Your task to perform on an android device: read, delete, or share a saved page in the chrome app Image 0: 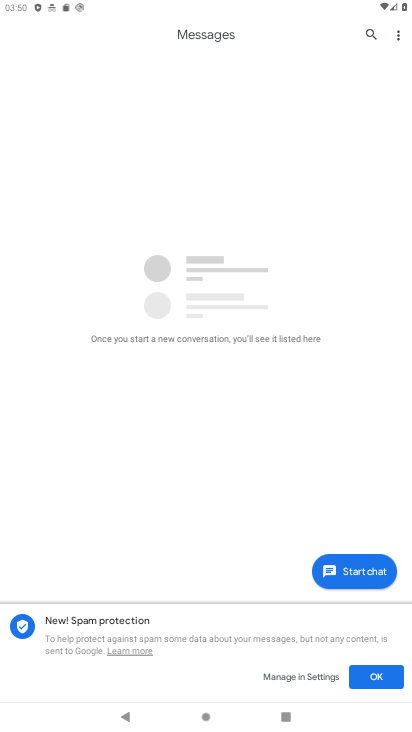
Step 0: press home button
Your task to perform on an android device: read, delete, or share a saved page in the chrome app Image 1: 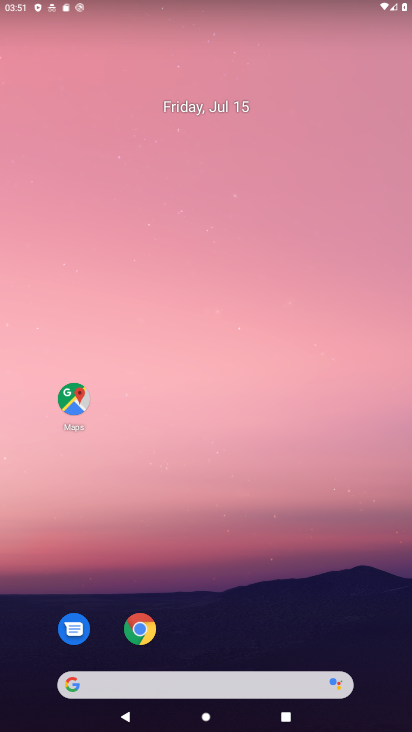
Step 1: drag from (258, 629) to (253, 81)
Your task to perform on an android device: read, delete, or share a saved page in the chrome app Image 2: 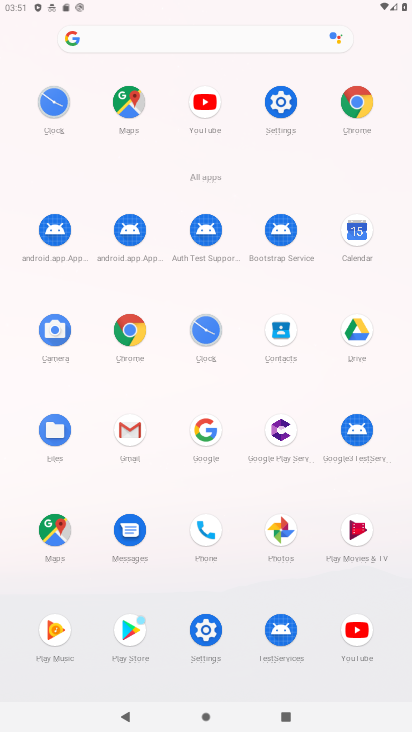
Step 2: click (120, 330)
Your task to perform on an android device: read, delete, or share a saved page in the chrome app Image 3: 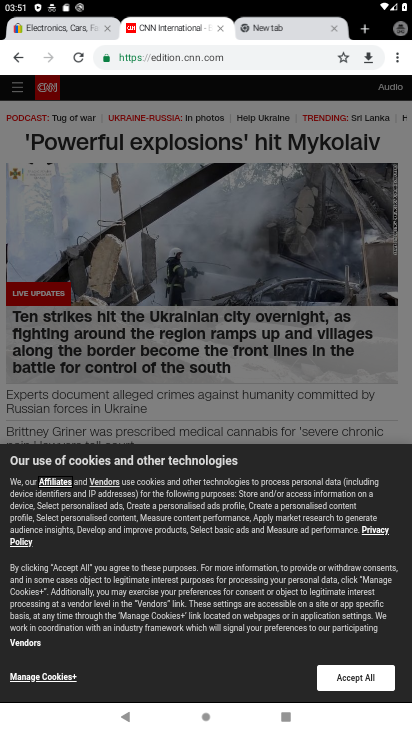
Step 3: drag from (256, 528) to (258, 312)
Your task to perform on an android device: read, delete, or share a saved page in the chrome app Image 4: 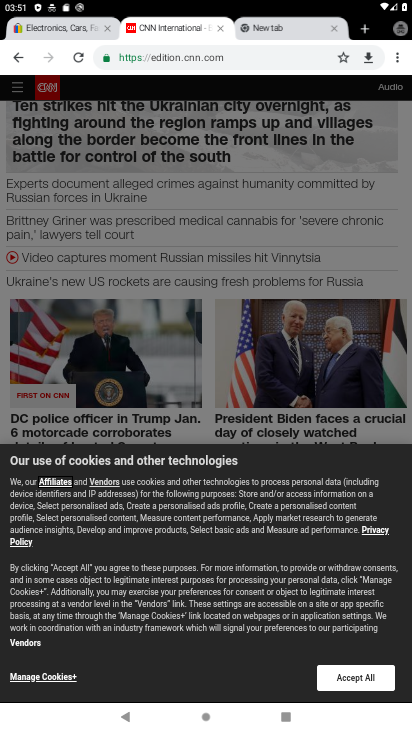
Step 4: click (394, 56)
Your task to perform on an android device: read, delete, or share a saved page in the chrome app Image 5: 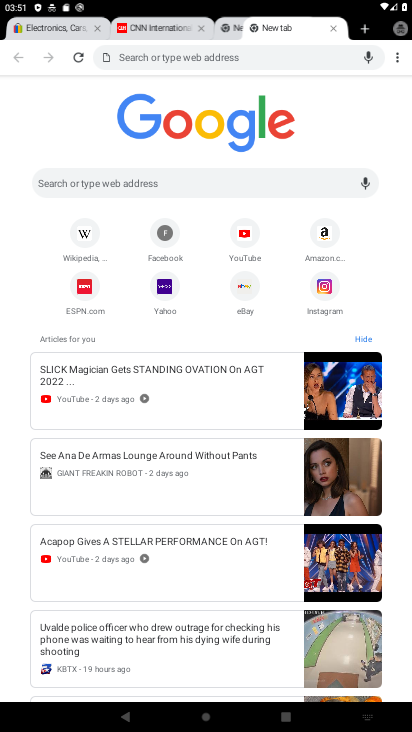
Step 5: click (396, 58)
Your task to perform on an android device: read, delete, or share a saved page in the chrome app Image 6: 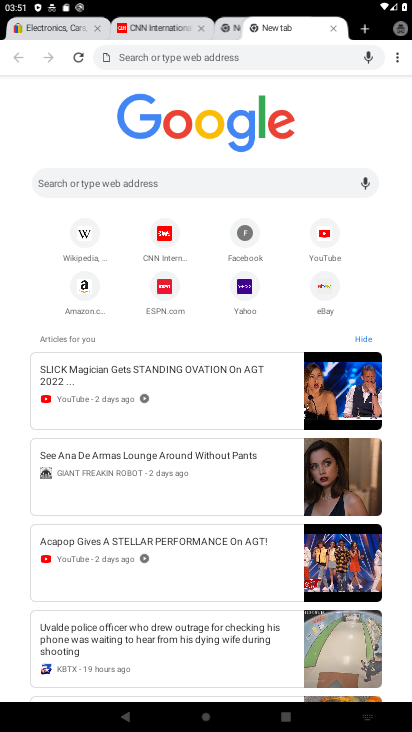
Step 6: click (238, 25)
Your task to perform on an android device: read, delete, or share a saved page in the chrome app Image 7: 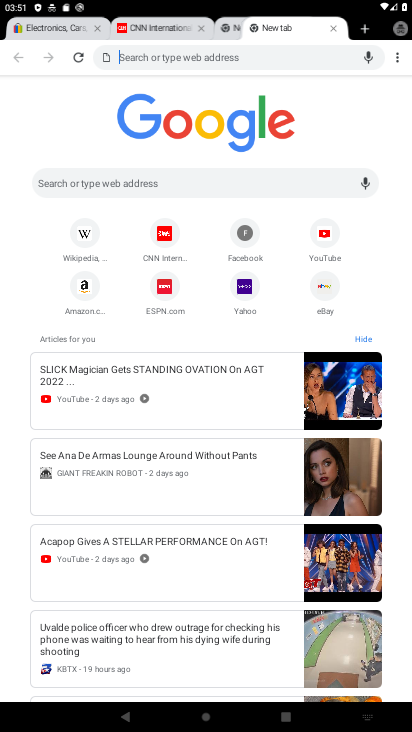
Step 7: click (176, 25)
Your task to perform on an android device: read, delete, or share a saved page in the chrome app Image 8: 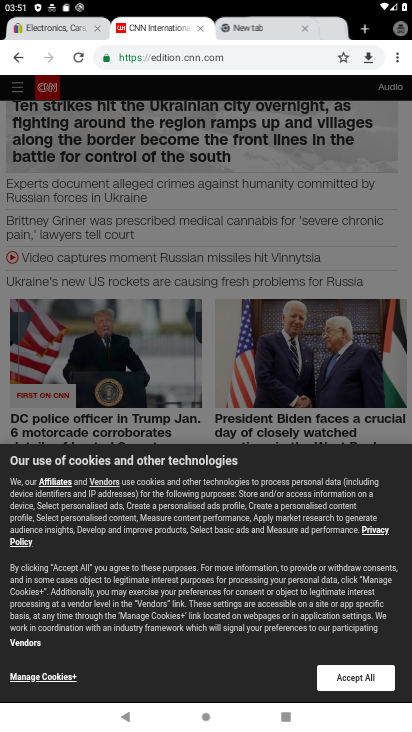
Step 8: click (342, 59)
Your task to perform on an android device: read, delete, or share a saved page in the chrome app Image 9: 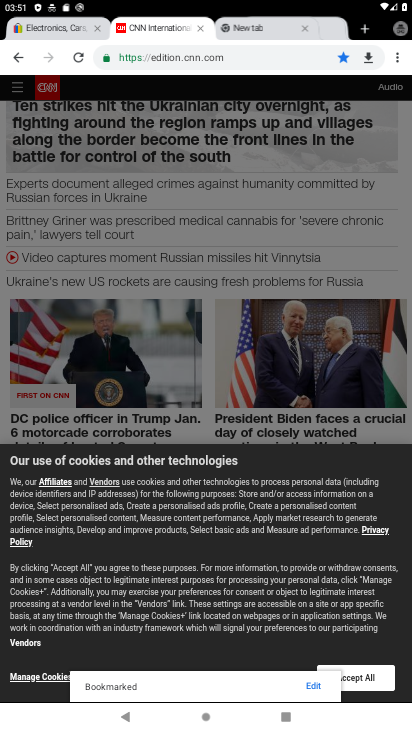
Step 9: click (342, 59)
Your task to perform on an android device: read, delete, or share a saved page in the chrome app Image 10: 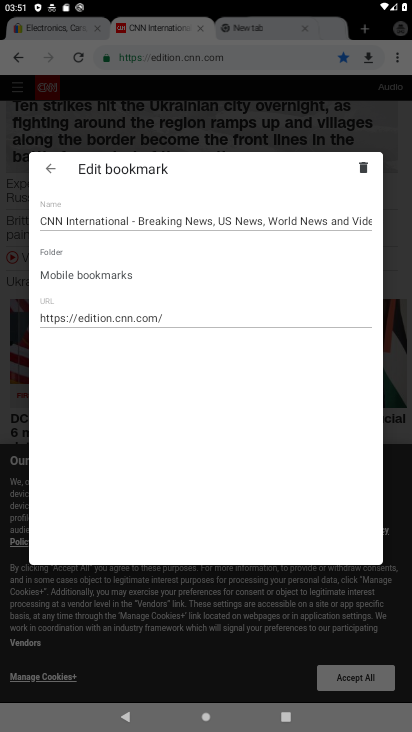
Step 10: click (361, 162)
Your task to perform on an android device: read, delete, or share a saved page in the chrome app Image 11: 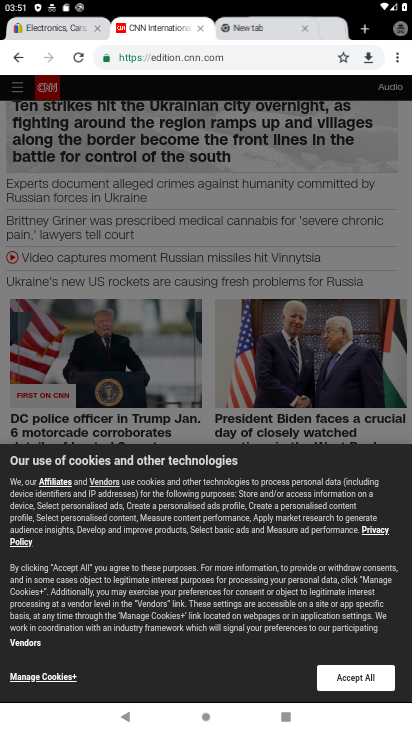
Step 11: task complete